Your task to perform on an android device: turn on translation in the chrome app Image 0: 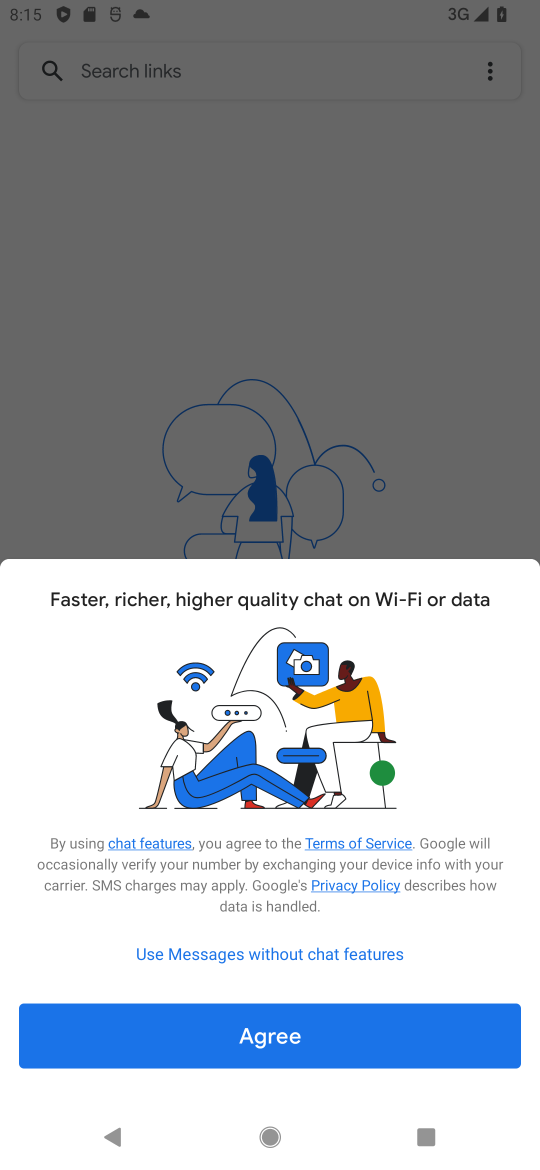
Step 0: press home button
Your task to perform on an android device: turn on translation in the chrome app Image 1: 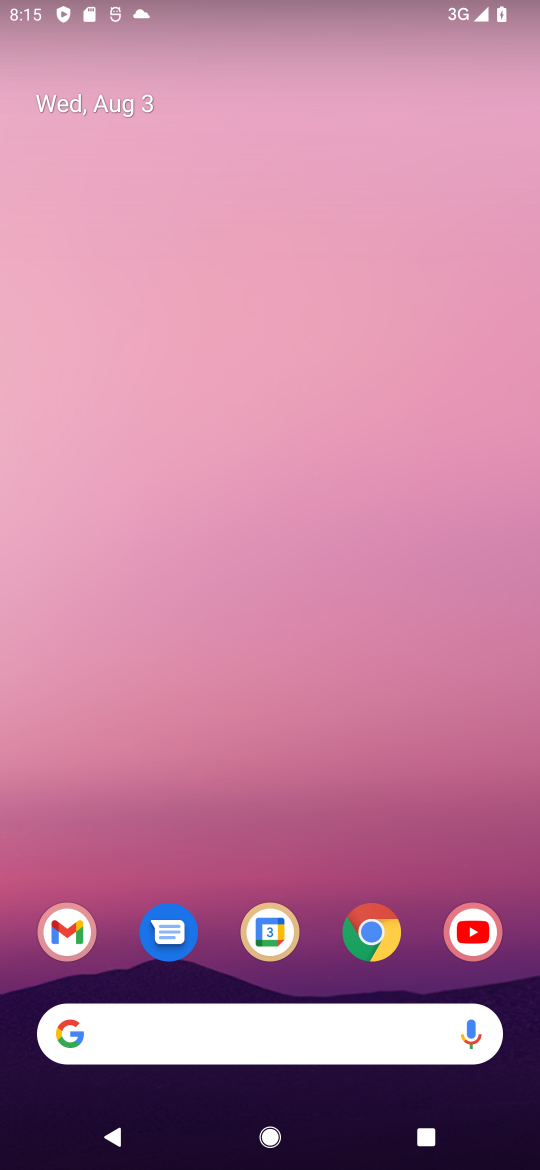
Step 1: click (367, 947)
Your task to perform on an android device: turn on translation in the chrome app Image 2: 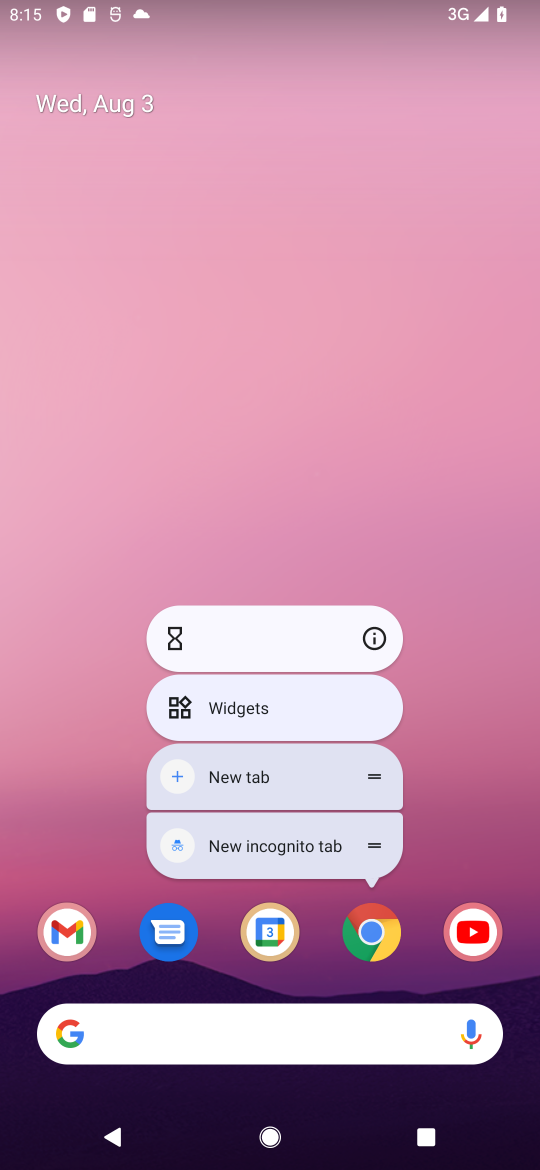
Step 2: click (367, 947)
Your task to perform on an android device: turn on translation in the chrome app Image 3: 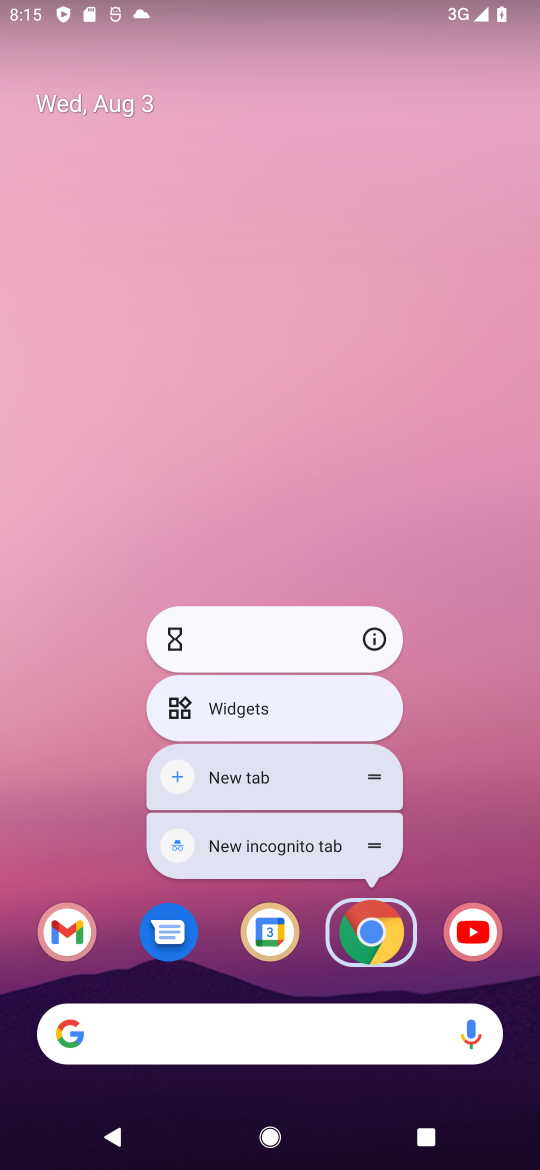
Step 3: click (367, 947)
Your task to perform on an android device: turn on translation in the chrome app Image 4: 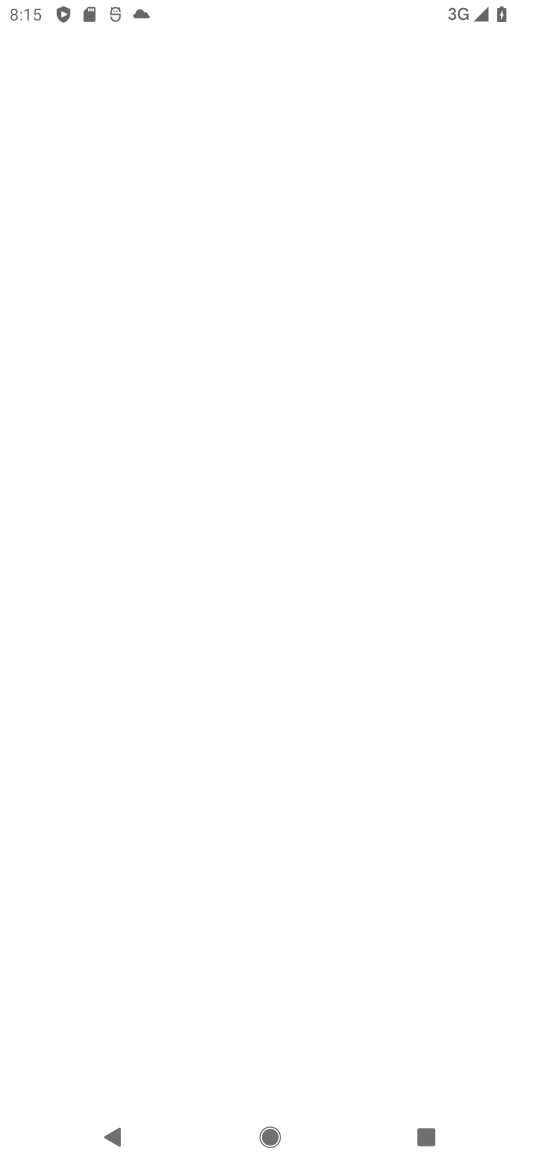
Step 4: click (367, 947)
Your task to perform on an android device: turn on translation in the chrome app Image 5: 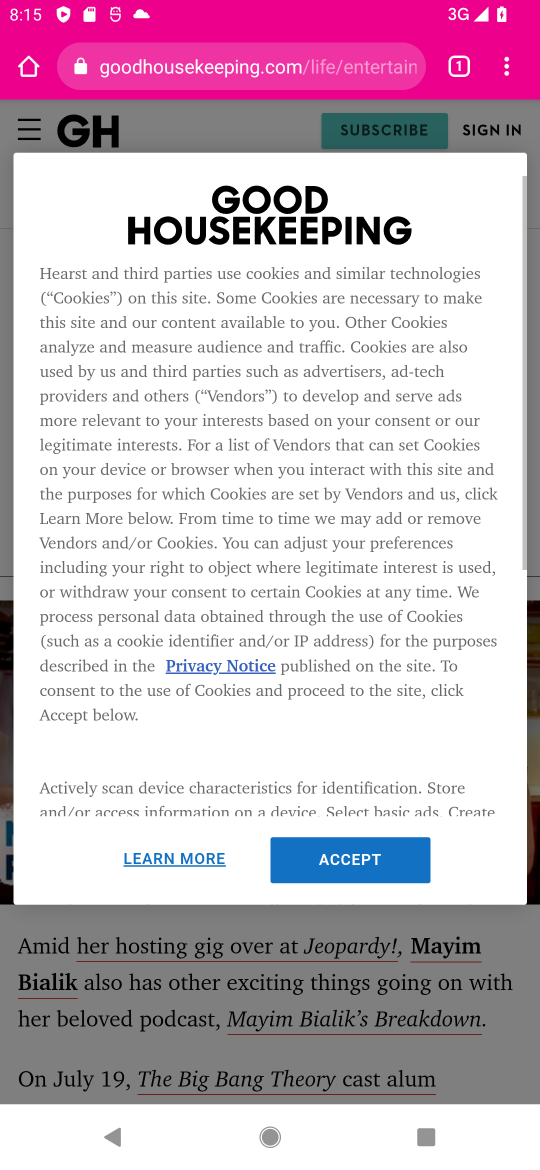
Step 5: click (511, 52)
Your task to perform on an android device: turn on translation in the chrome app Image 6: 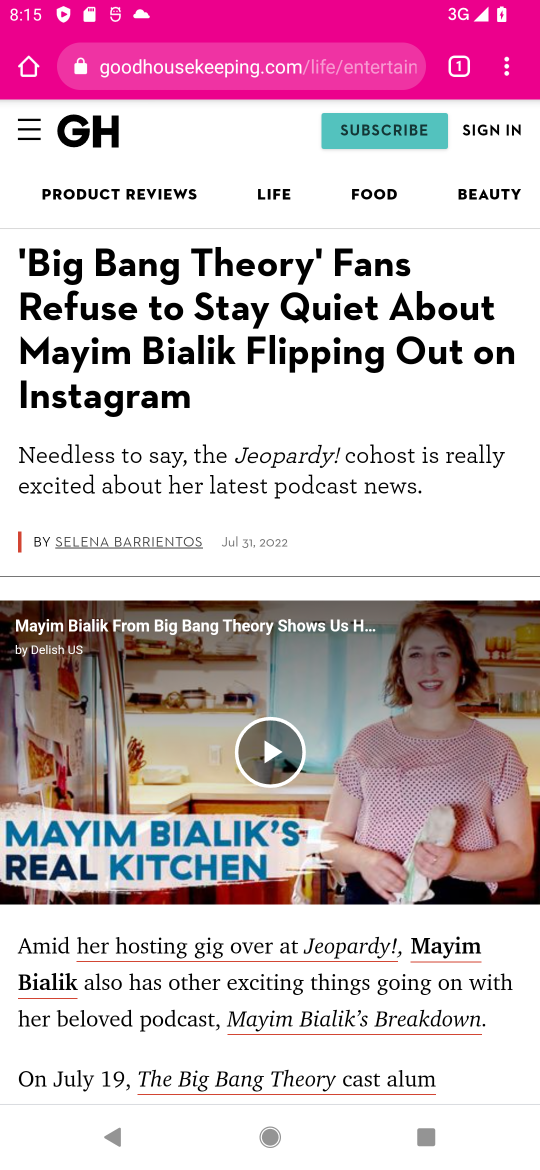
Step 6: click (510, 56)
Your task to perform on an android device: turn on translation in the chrome app Image 7: 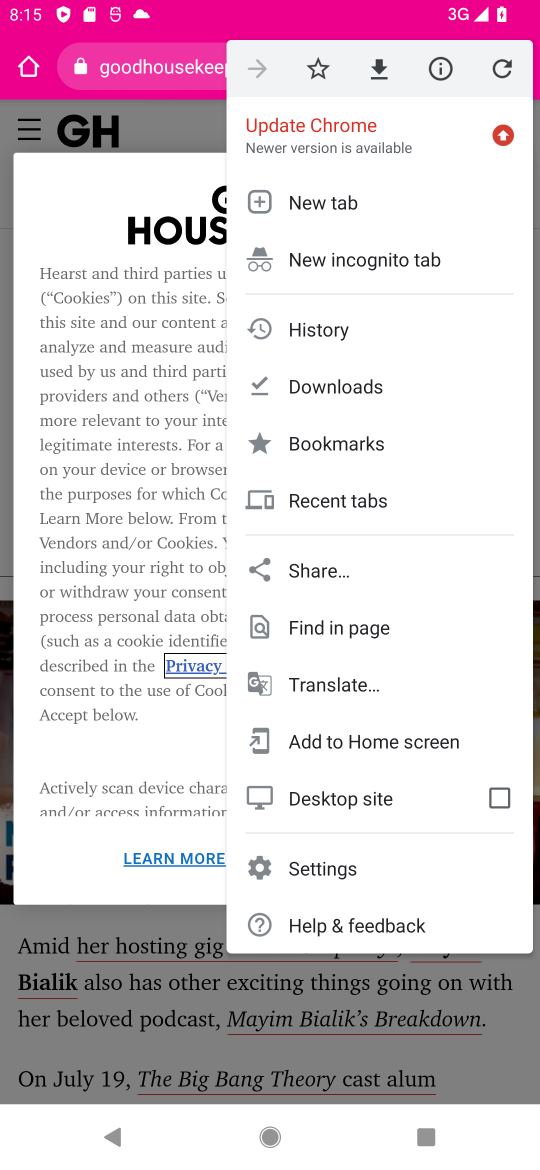
Step 7: click (364, 865)
Your task to perform on an android device: turn on translation in the chrome app Image 8: 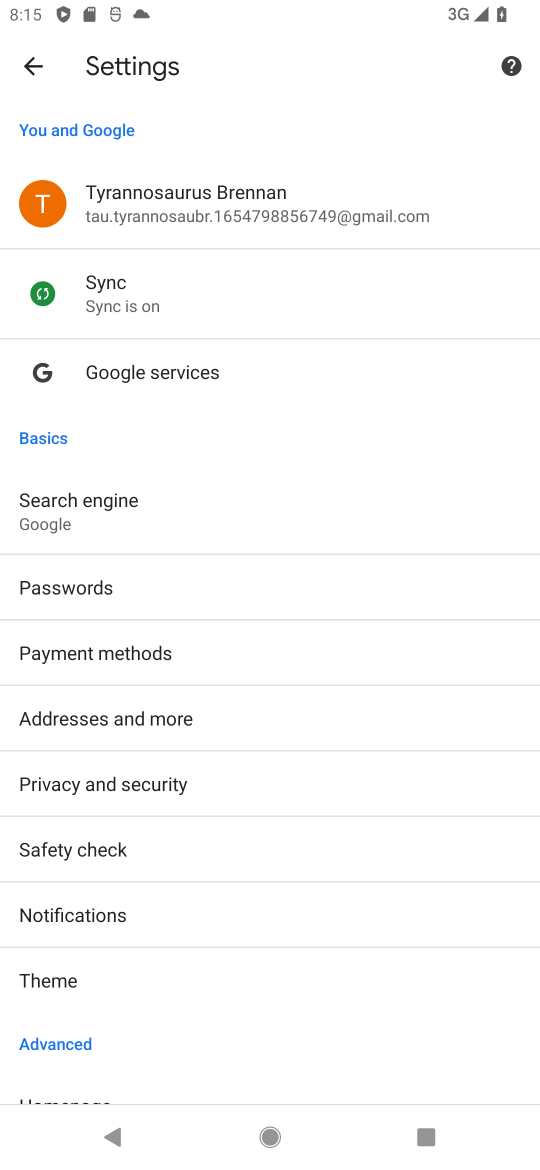
Step 8: drag from (280, 848) to (284, 260)
Your task to perform on an android device: turn on translation in the chrome app Image 9: 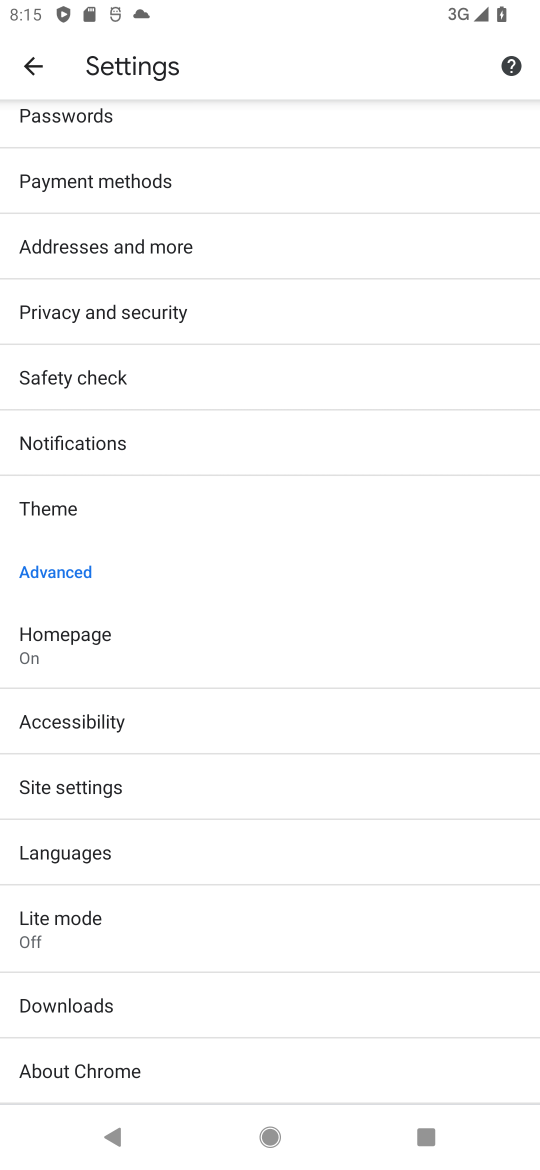
Step 9: click (126, 850)
Your task to perform on an android device: turn on translation in the chrome app Image 10: 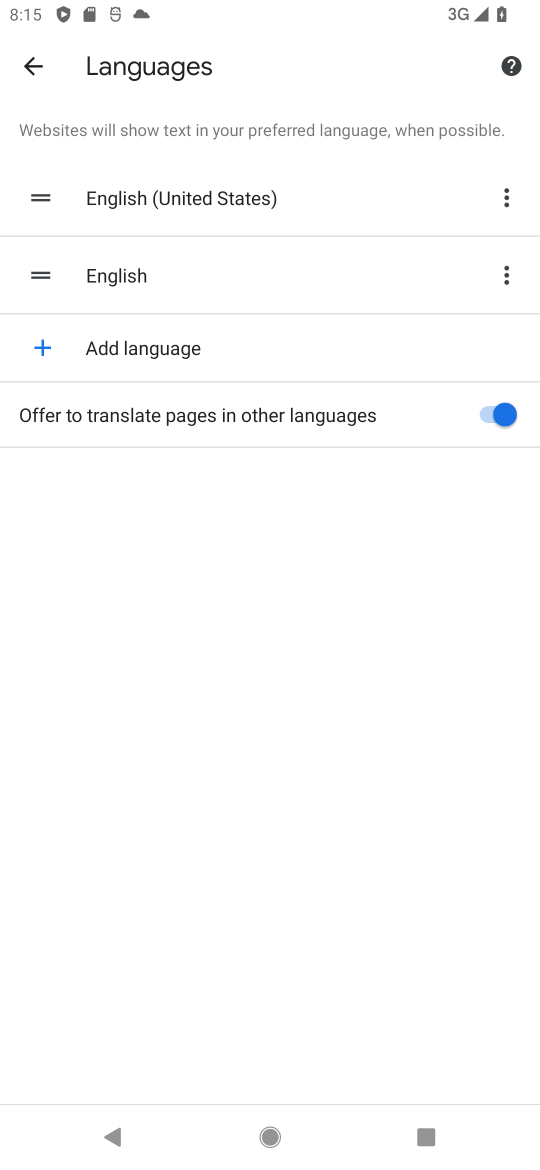
Step 10: task complete